Your task to perform on an android device: Open Android settings Image 0: 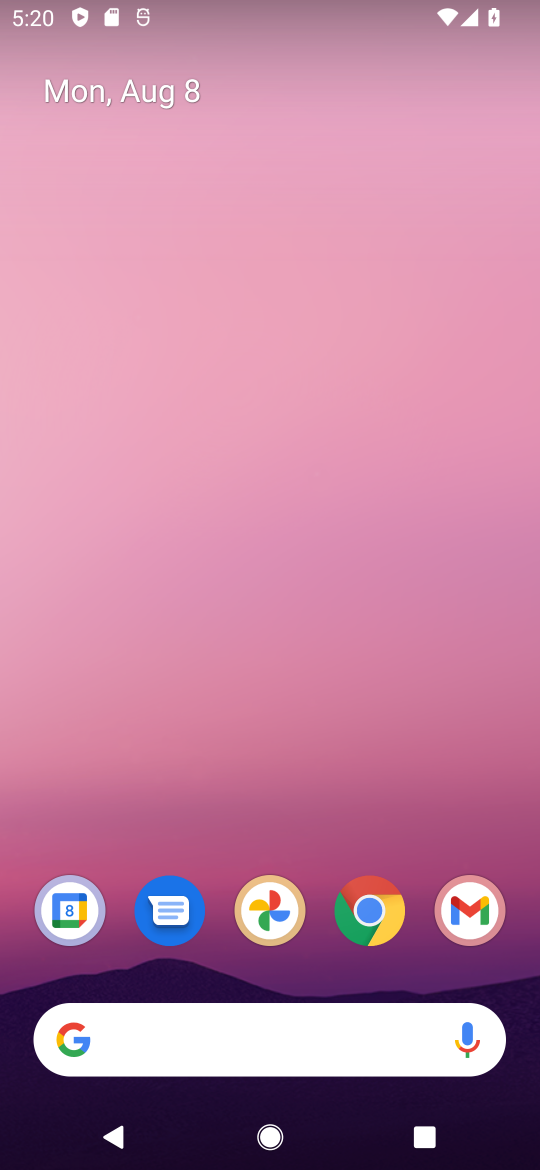
Step 0: drag from (188, 1051) to (247, 382)
Your task to perform on an android device: Open Android settings Image 1: 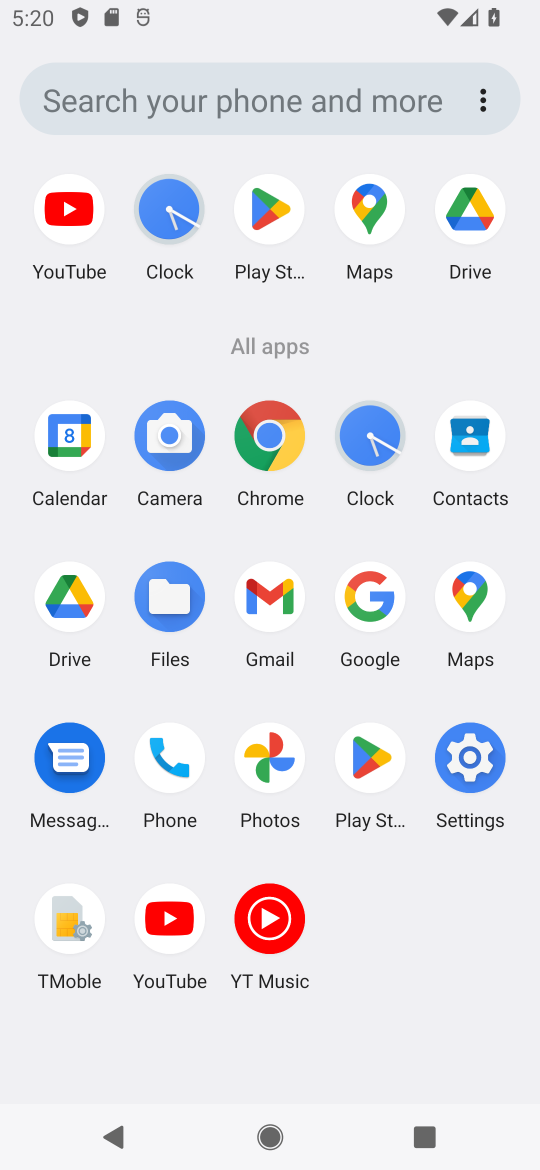
Step 1: click (471, 760)
Your task to perform on an android device: Open Android settings Image 2: 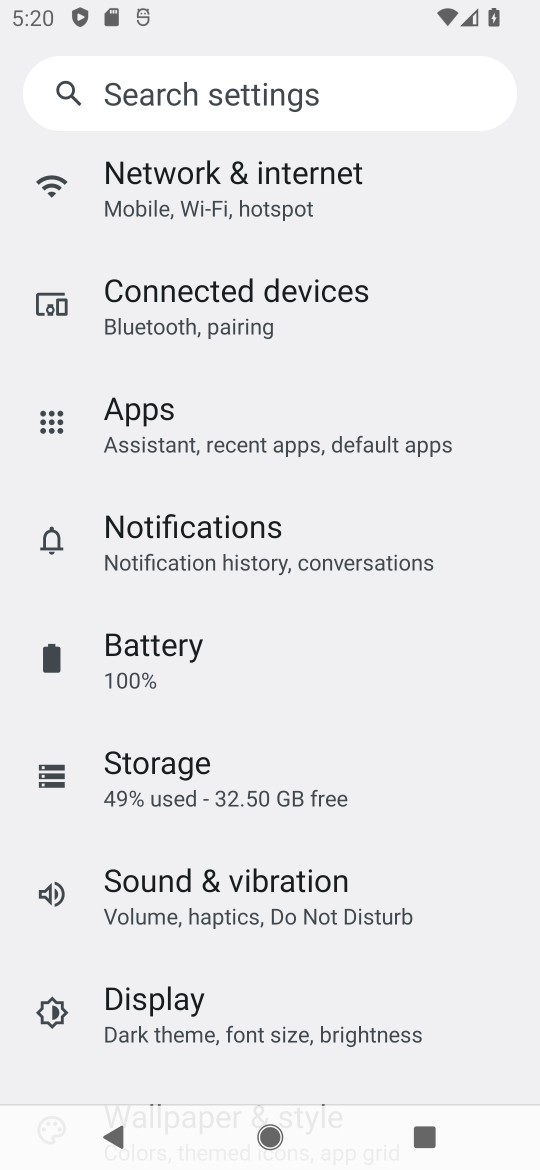
Step 2: task complete